Your task to perform on an android device: add a contact in the contacts app Image 0: 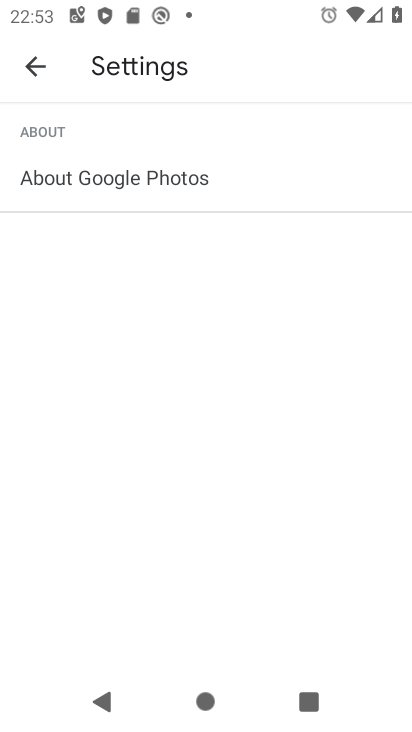
Step 0: press home button
Your task to perform on an android device: add a contact in the contacts app Image 1: 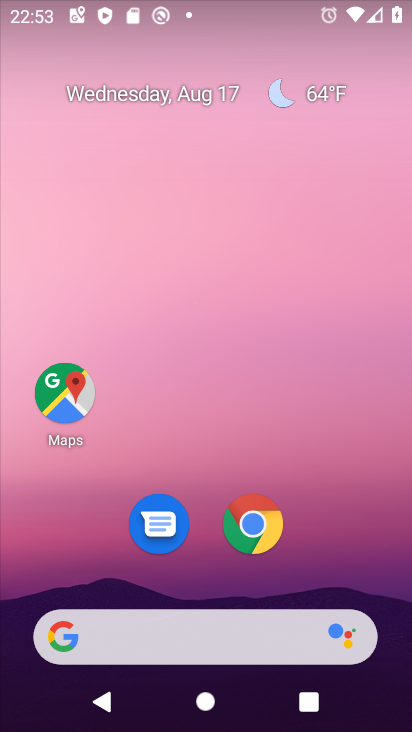
Step 1: drag from (281, 442) to (376, 4)
Your task to perform on an android device: add a contact in the contacts app Image 2: 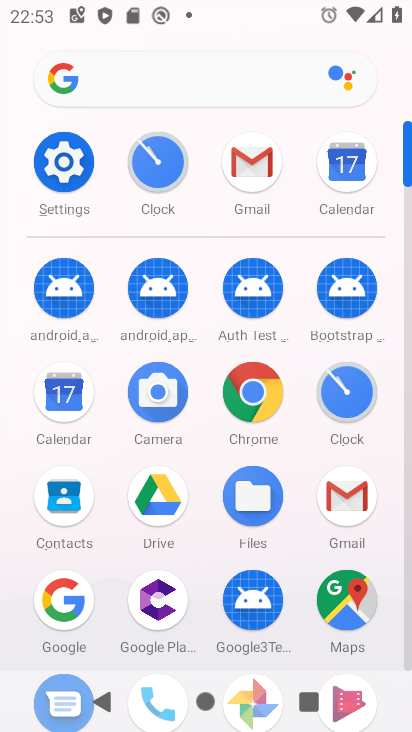
Step 2: click (78, 499)
Your task to perform on an android device: add a contact in the contacts app Image 3: 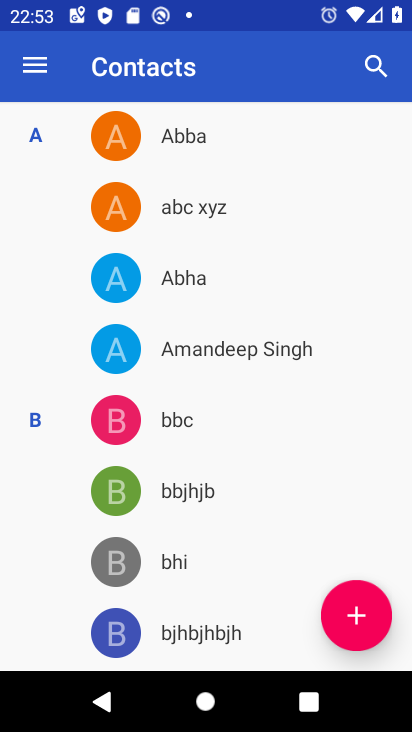
Step 3: click (356, 613)
Your task to perform on an android device: add a contact in the contacts app Image 4: 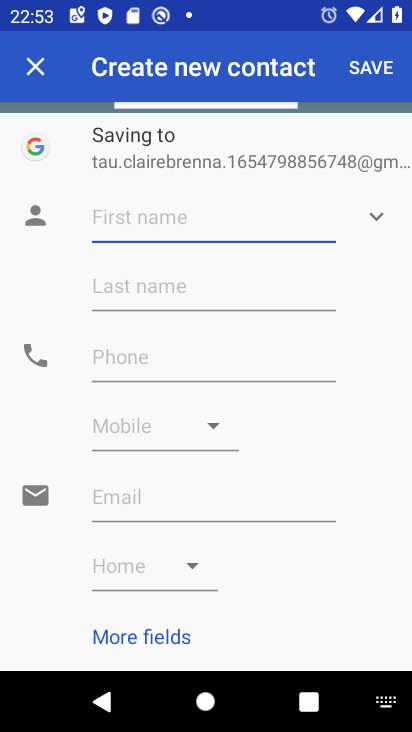
Step 4: click (42, 65)
Your task to perform on an android device: add a contact in the contacts app Image 5: 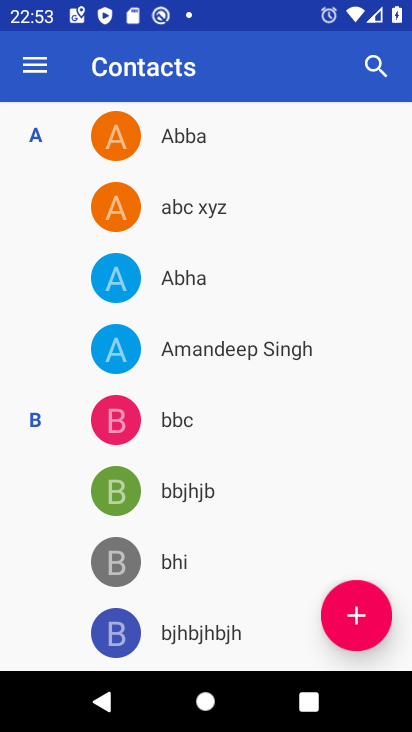
Step 5: click (350, 620)
Your task to perform on an android device: add a contact in the contacts app Image 6: 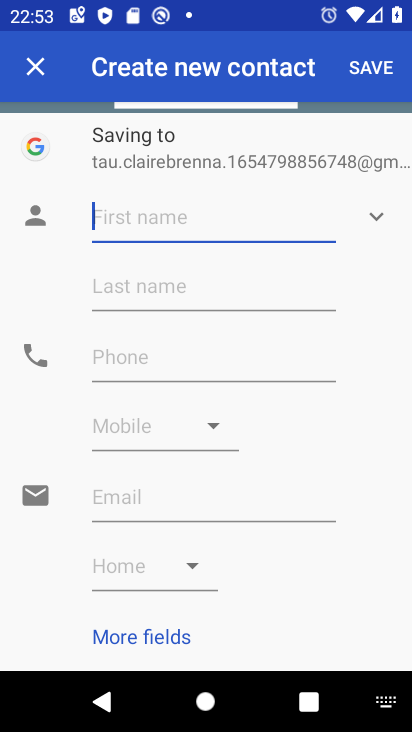
Step 6: type "Abhay"
Your task to perform on an android device: add a contact in the contacts app Image 7: 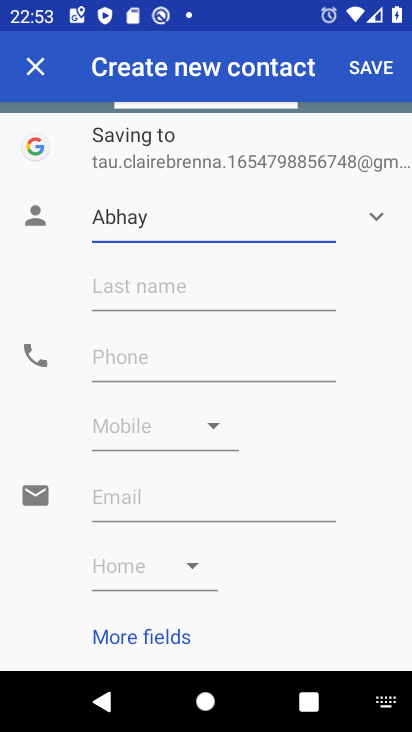
Step 7: click (240, 351)
Your task to perform on an android device: add a contact in the contacts app Image 8: 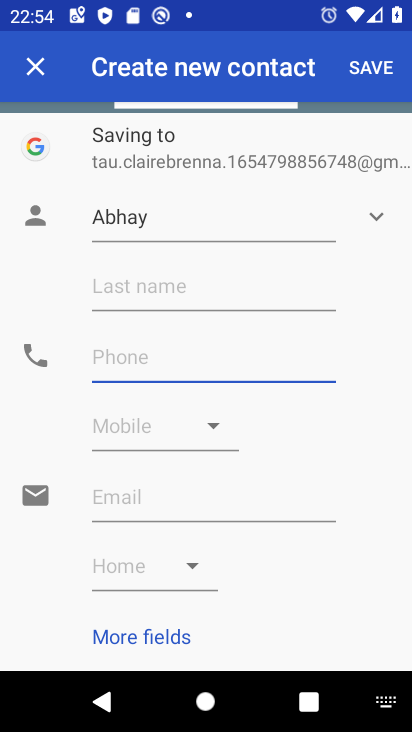
Step 8: type "+919999775533"
Your task to perform on an android device: add a contact in the contacts app Image 9: 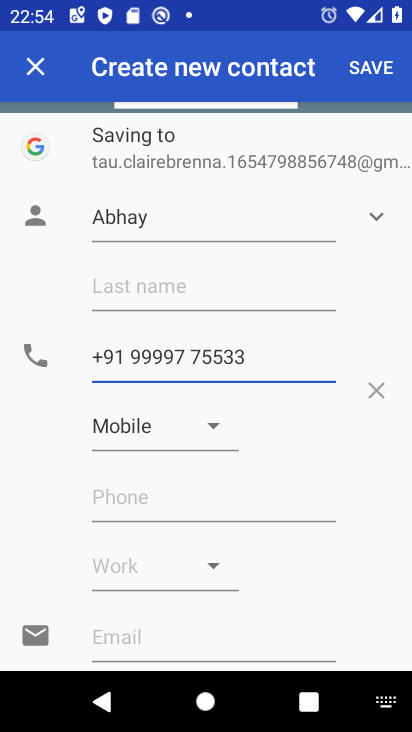
Step 9: click (376, 62)
Your task to perform on an android device: add a contact in the contacts app Image 10: 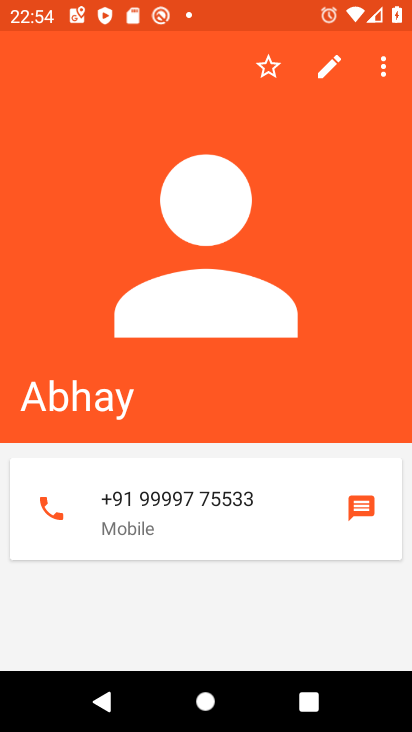
Step 10: task complete